Your task to perform on an android device: Open Google Chrome and open the bookmarks view Image 0: 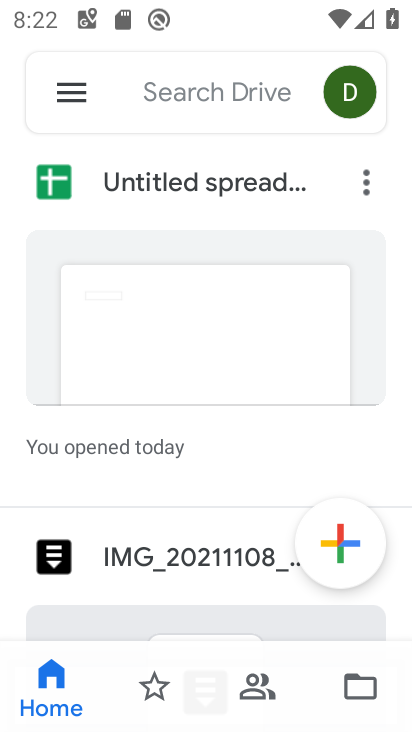
Step 0: press home button
Your task to perform on an android device: Open Google Chrome and open the bookmarks view Image 1: 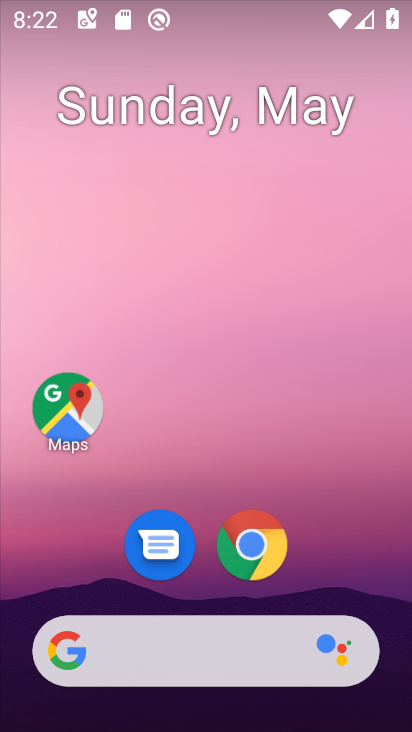
Step 1: click (278, 557)
Your task to perform on an android device: Open Google Chrome and open the bookmarks view Image 2: 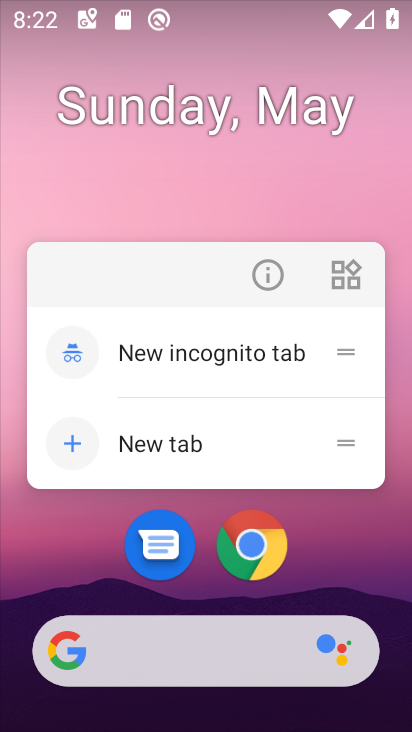
Step 2: click (282, 554)
Your task to perform on an android device: Open Google Chrome and open the bookmarks view Image 3: 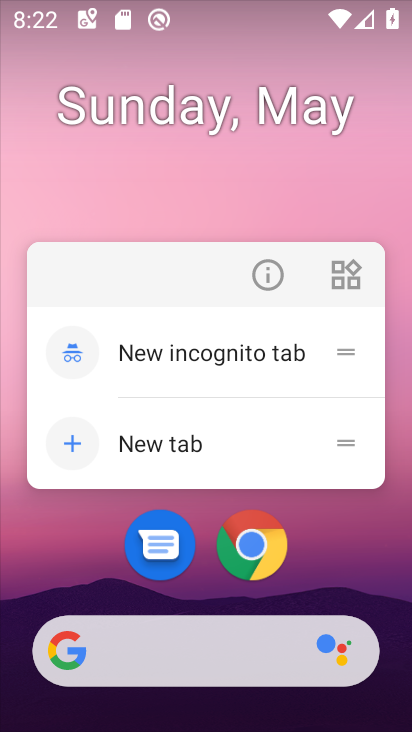
Step 3: click (251, 534)
Your task to perform on an android device: Open Google Chrome and open the bookmarks view Image 4: 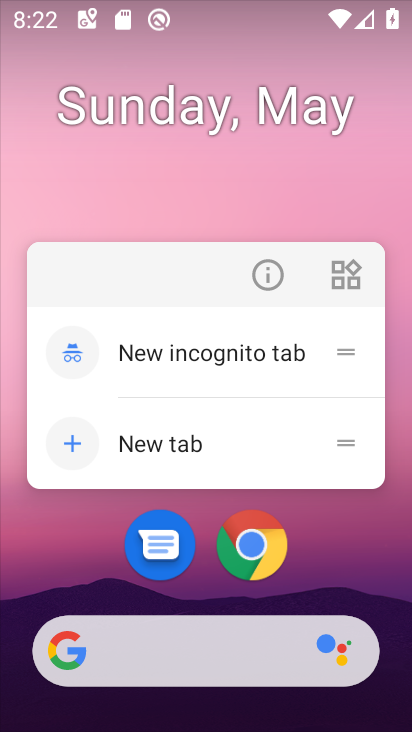
Step 4: click (252, 551)
Your task to perform on an android device: Open Google Chrome and open the bookmarks view Image 5: 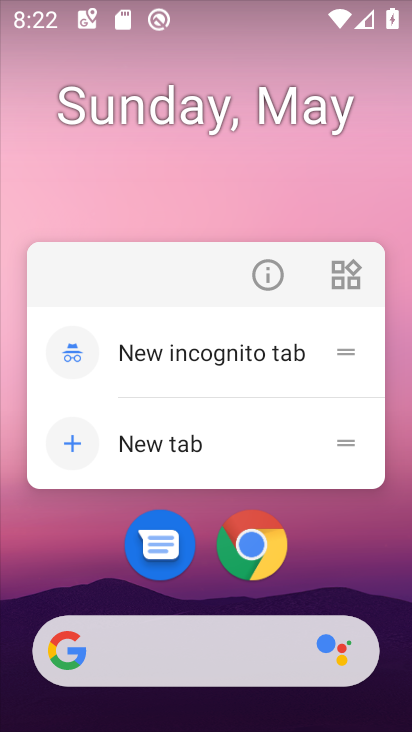
Step 5: click (272, 540)
Your task to perform on an android device: Open Google Chrome and open the bookmarks view Image 6: 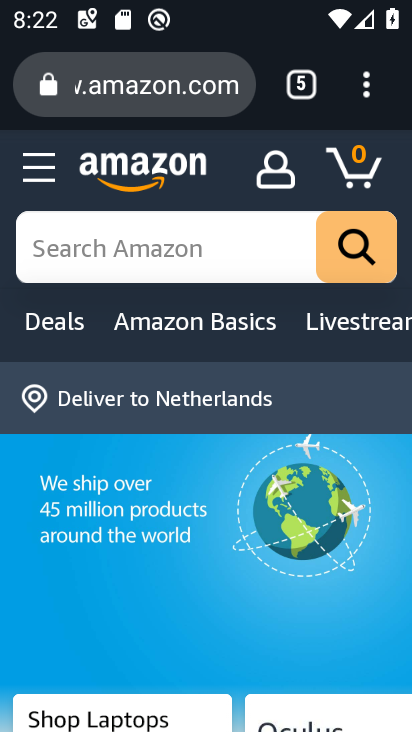
Step 6: task complete